Your task to perform on an android device: turn on javascript in the chrome app Image 0: 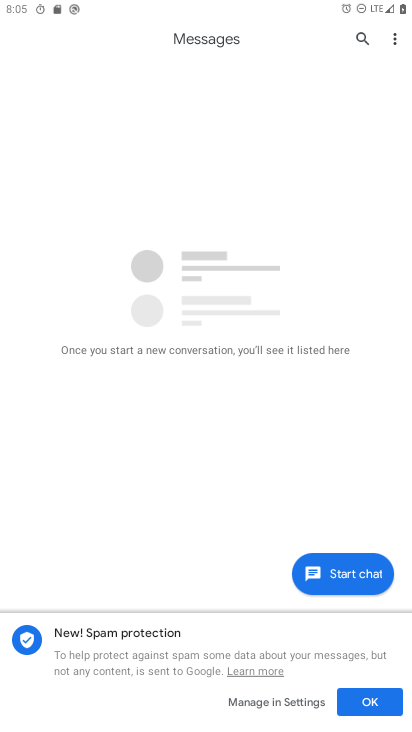
Step 0: press home button
Your task to perform on an android device: turn on javascript in the chrome app Image 1: 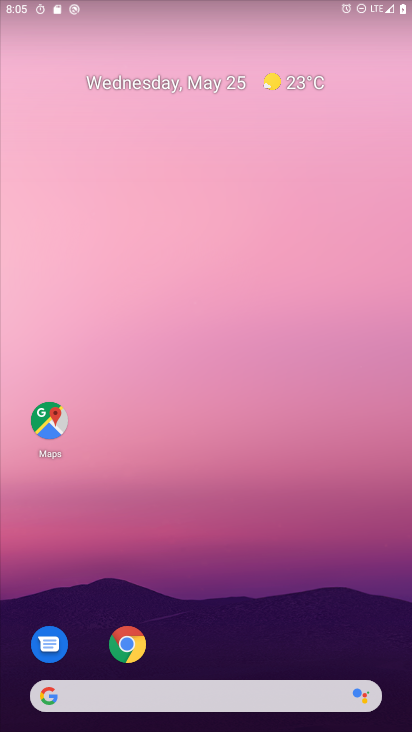
Step 1: drag from (373, 604) to (348, 2)
Your task to perform on an android device: turn on javascript in the chrome app Image 2: 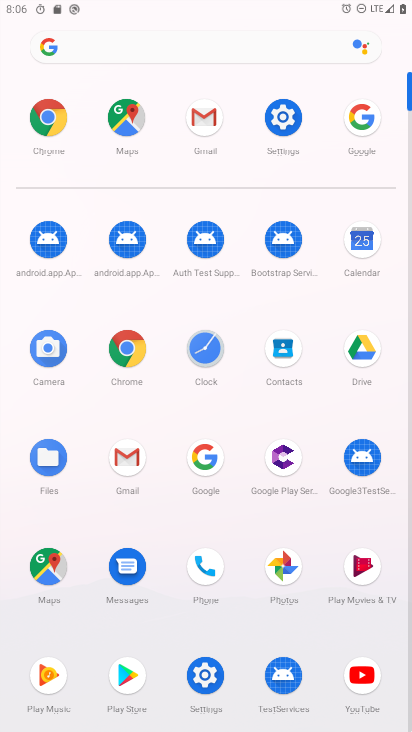
Step 2: click (50, 113)
Your task to perform on an android device: turn on javascript in the chrome app Image 3: 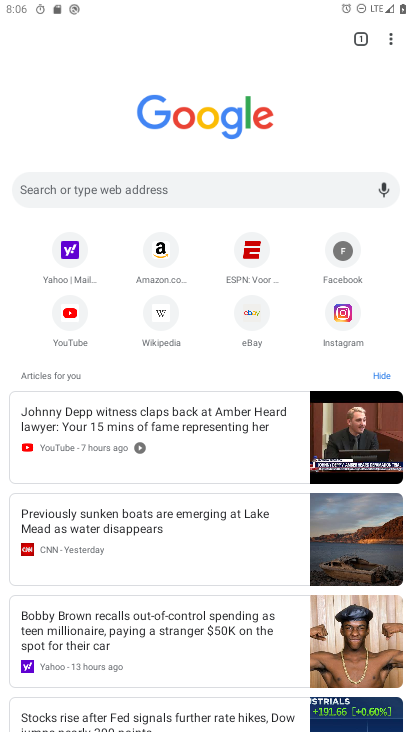
Step 3: click (390, 36)
Your task to perform on an android device: turn on javascript in the chrome app Image 4: 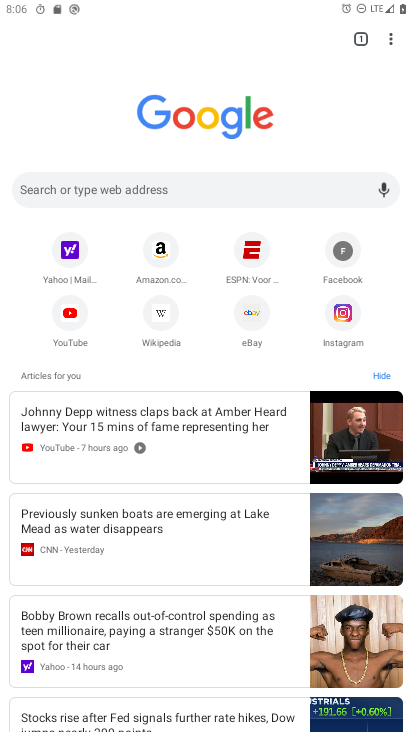
Step 4: click (391, 36)
Your task to perform on an android device: turn on javascript in the chrome app Image 5: 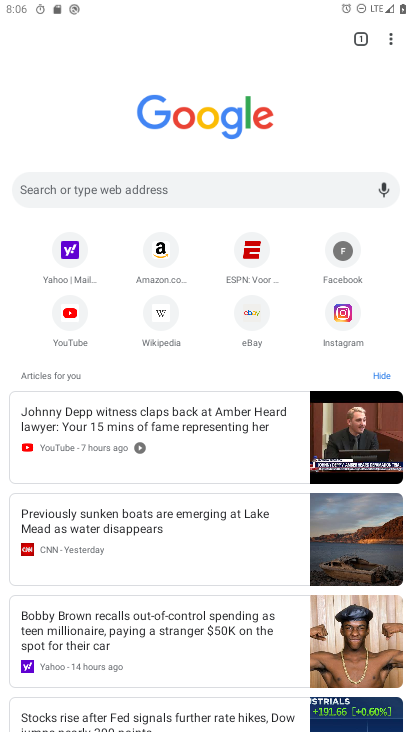
Step 5: click (391, 36)
Your task to perform on an android device: turn on javascript in the chrome app Image 6: 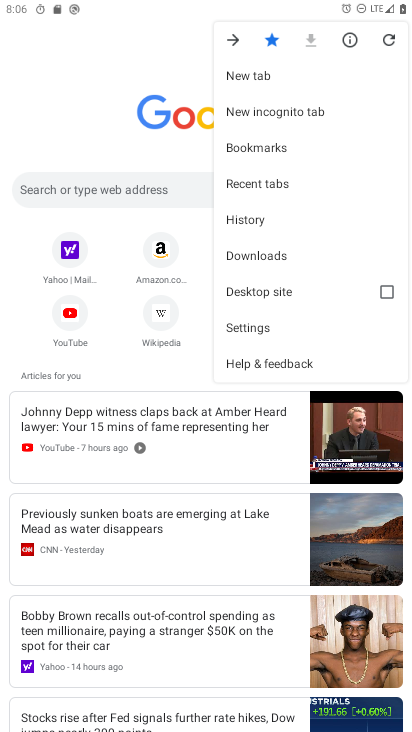
Step 6: click (253, 327)
Your task to perform on an android device: turn on javascript in the chrome app Image 7: 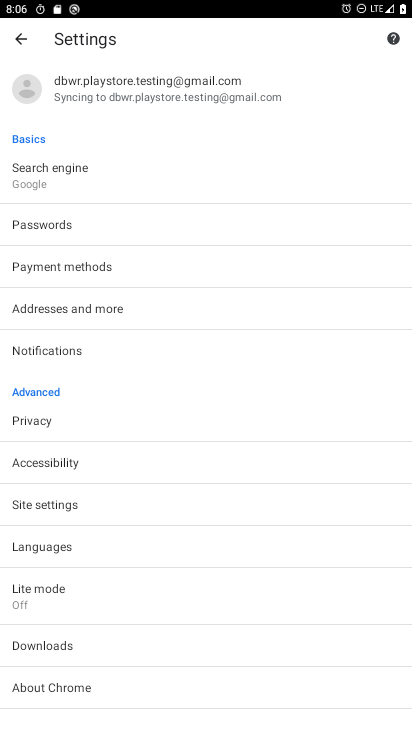
Step 7: click (108, 506)
Your task to perform on an android device: turn on javascript in the chrome app Image 8: 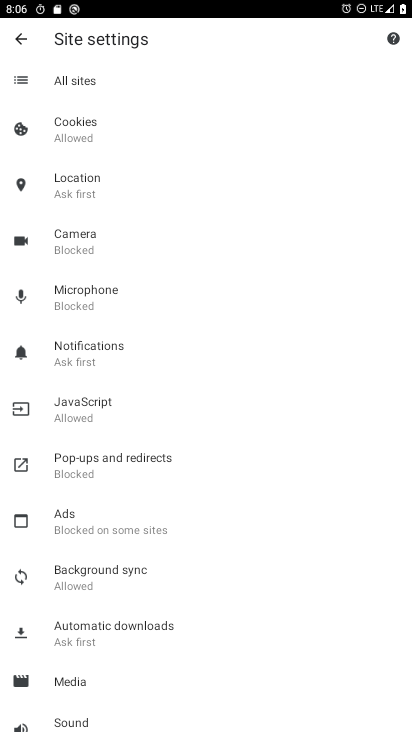
Step 8: click (103, 399)
Your task to perform on an android device: turn on javascript in the chrome app Image 9: 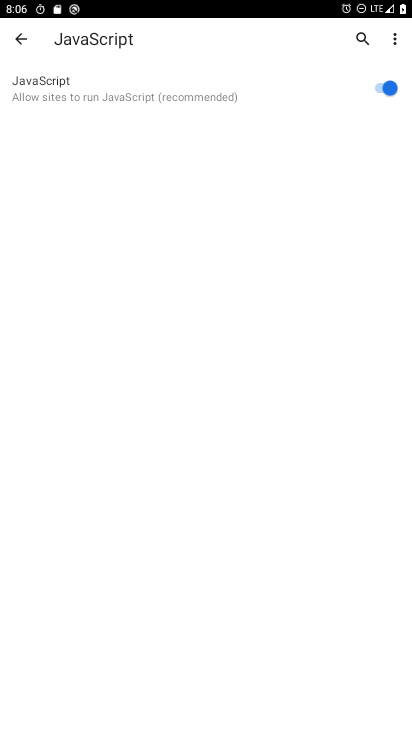
Step 9: task complete